Your task to perform on an android device: manage bookmarks in the chrome app Image 0: 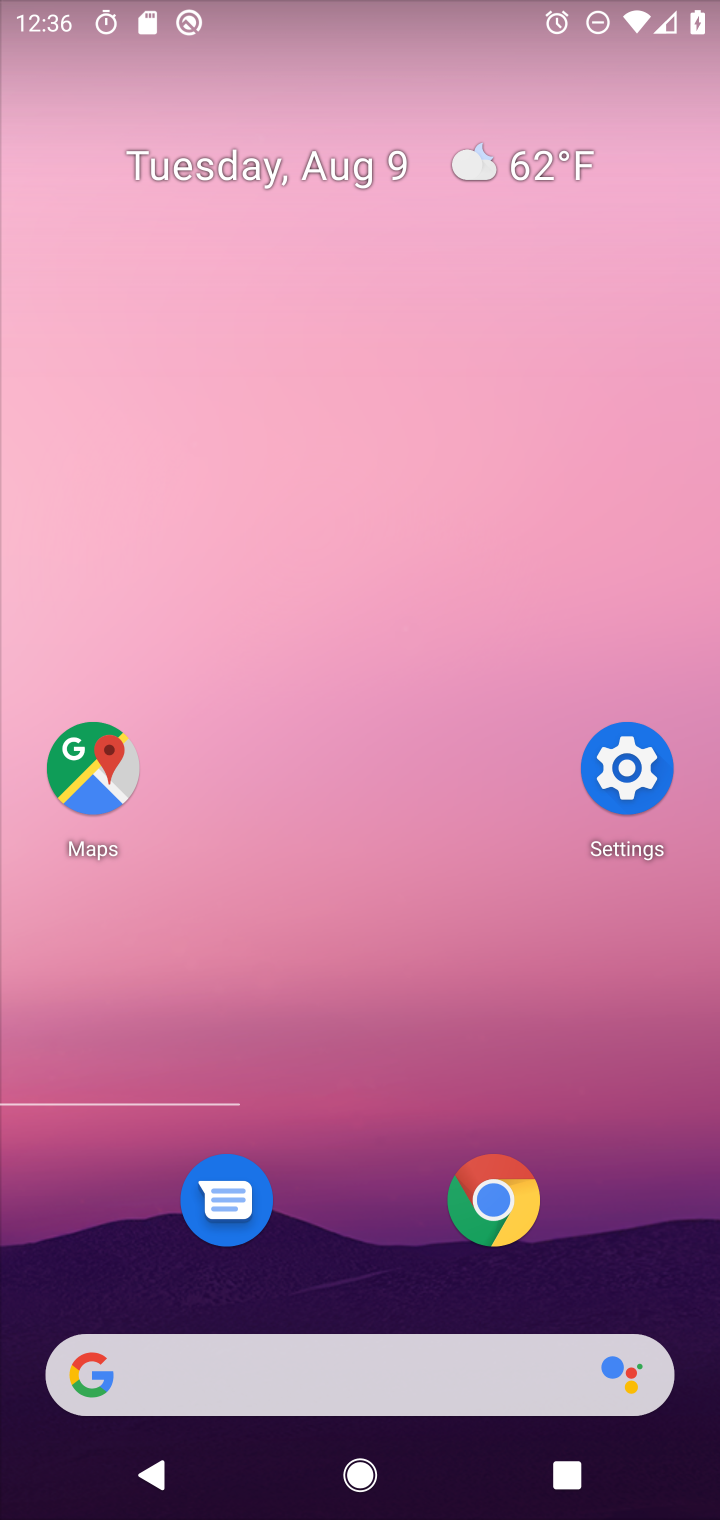
Step 0: press home button
Your task to perform on an android device: manage bookmarks in the chrome app Image 1: 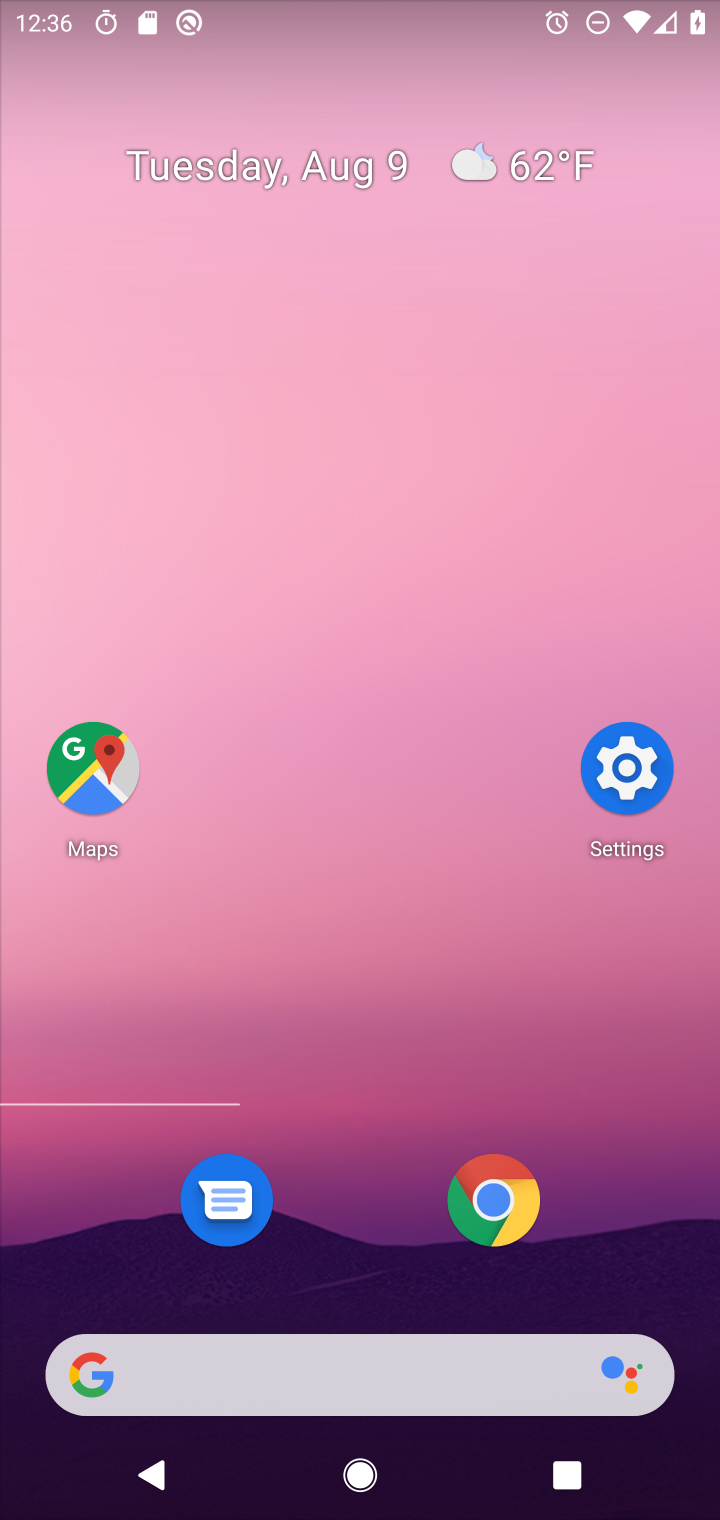
Step 1: click (491, 1197)
Your task to perform on an android device: manage bookmarks in the chrome app Image 2: 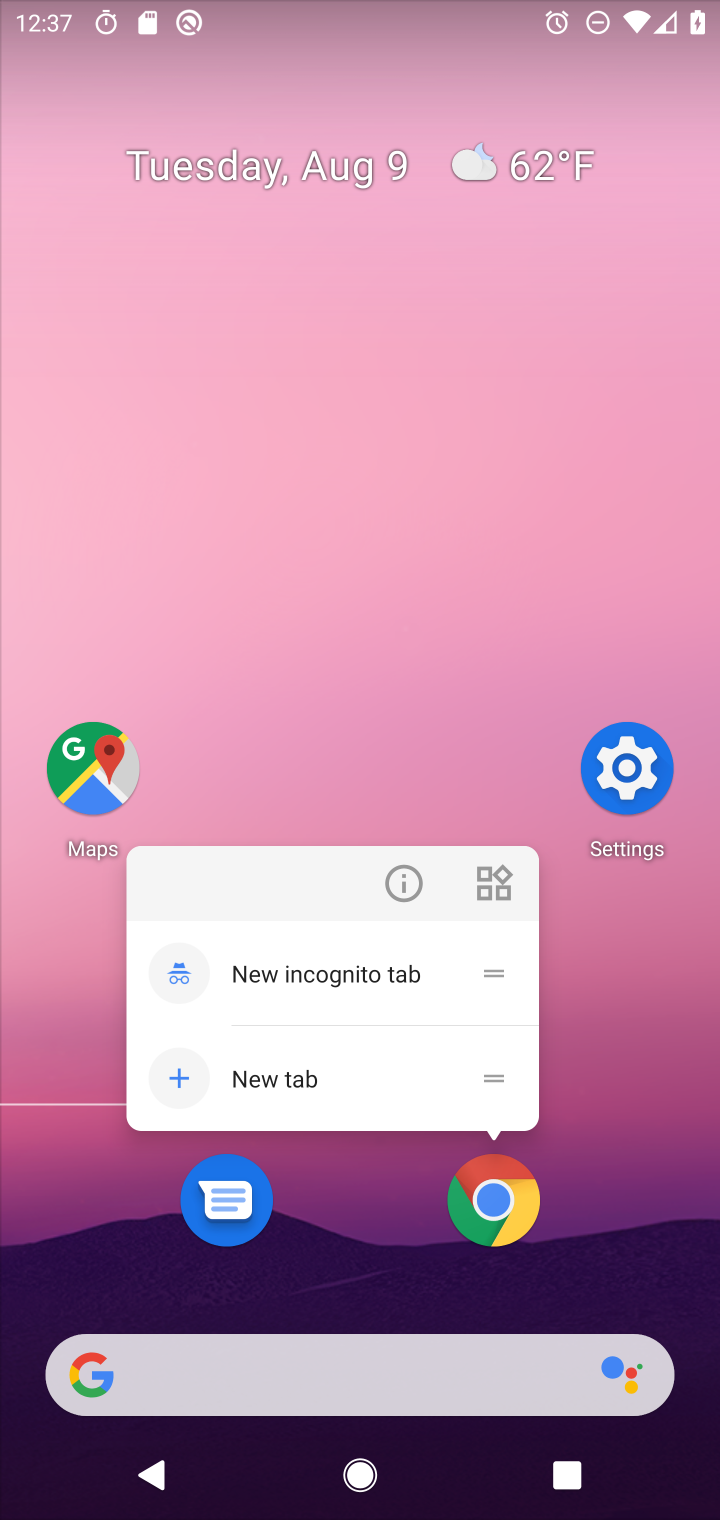
Step 2: click (491, 1201)
Your task to perform on an android device: manage bookmarks in the chrome app Image 3: 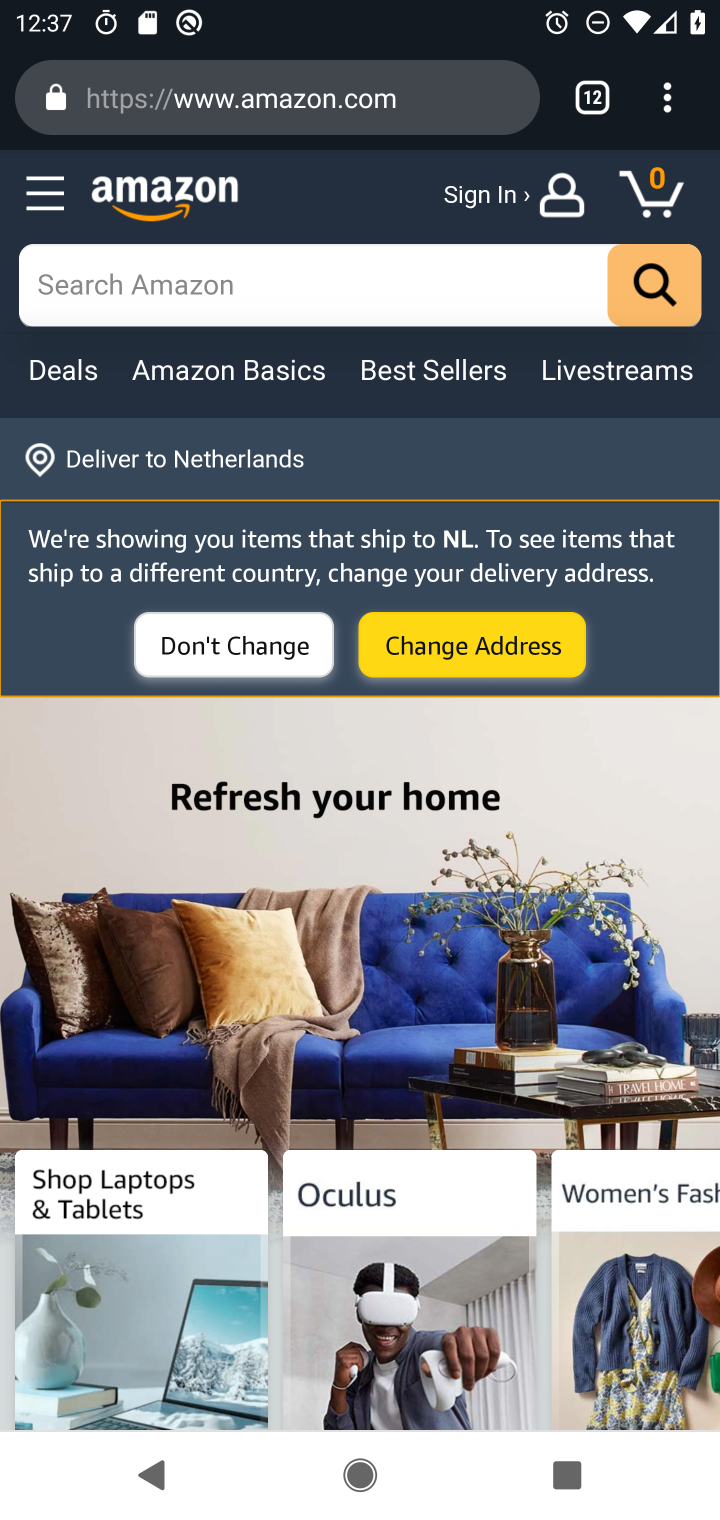
Step 3: drag from (659, 99) to (555, 470)
Your task to perform on an android device: manage bookmarks in the chrome app Image 4: 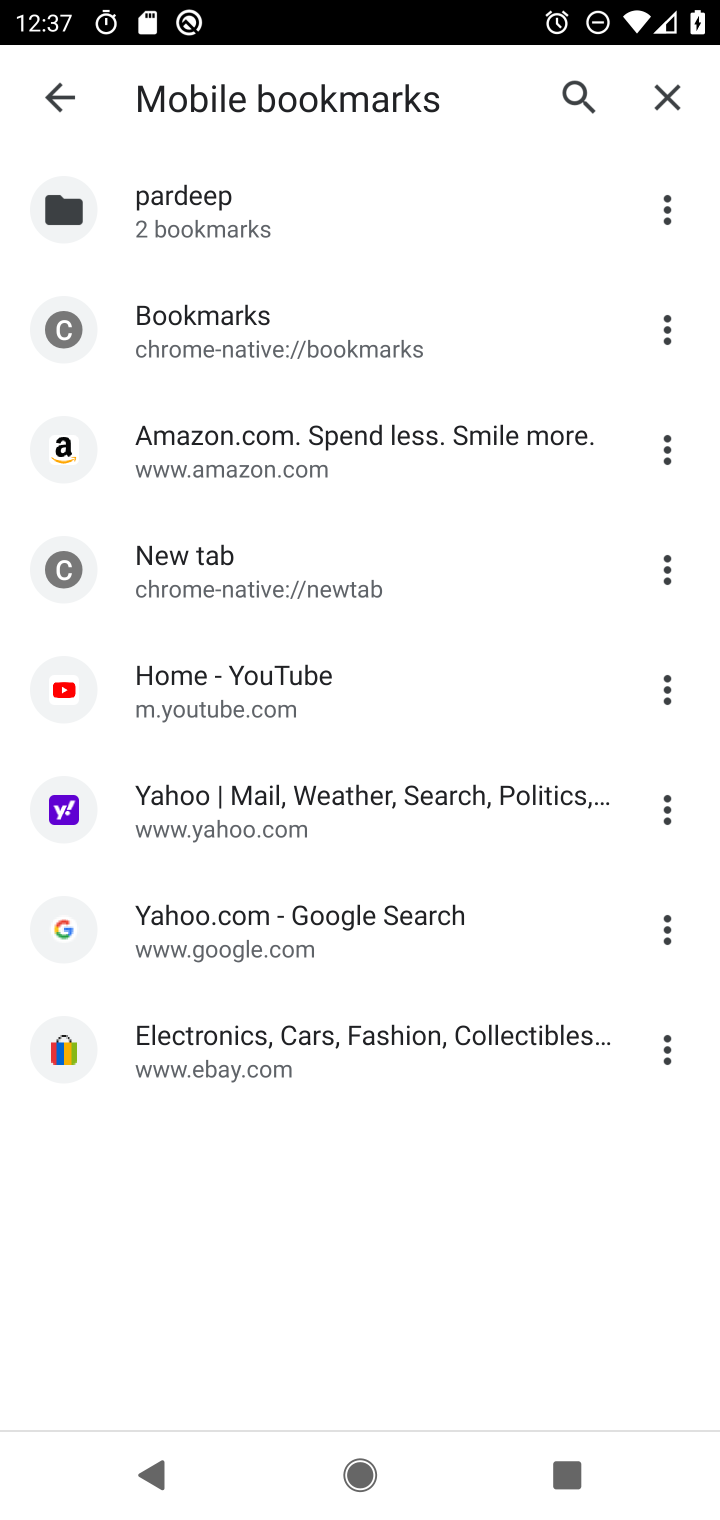
Step 4: click (652, 453)
Your task to perform on an android device: manage bookmarks in the chrome app Image 5: 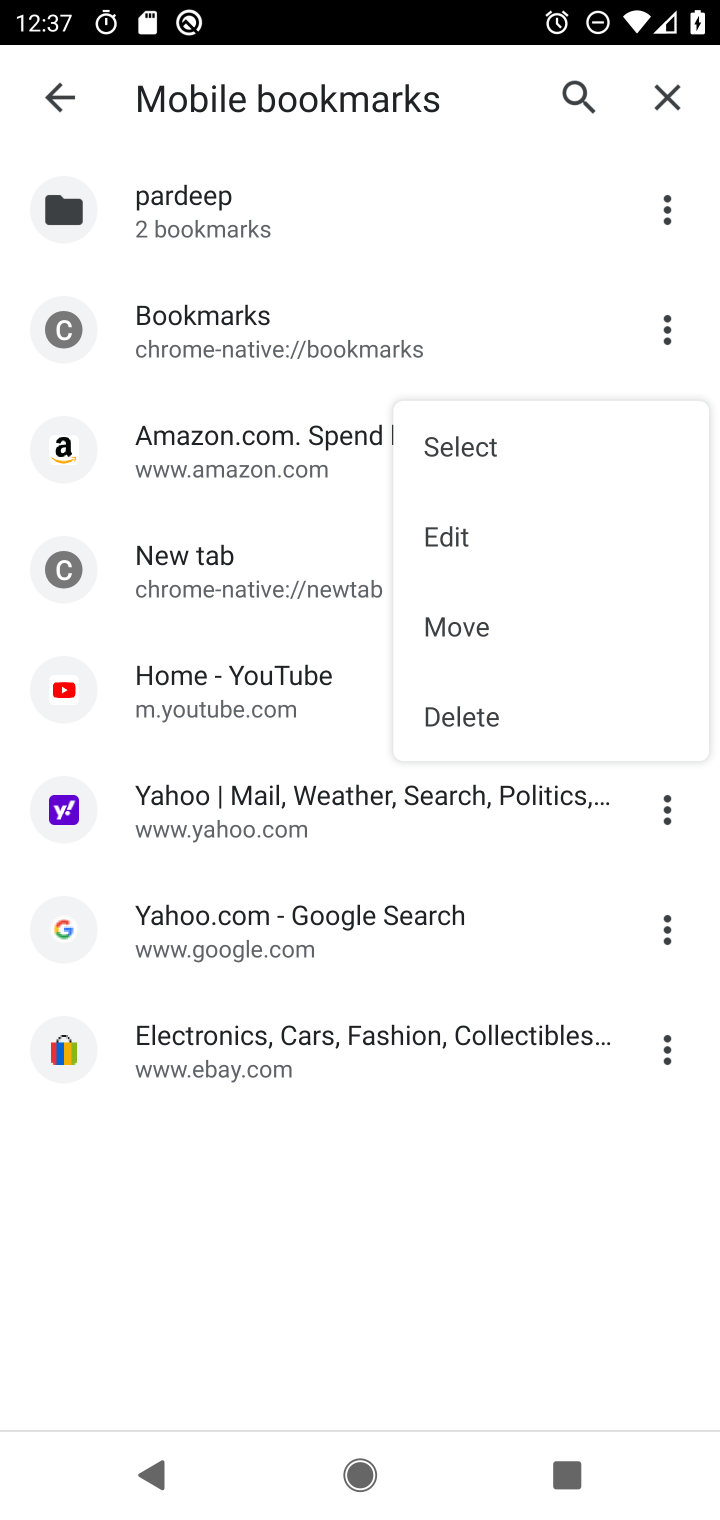
Step 5: click (480, 625)
Your task to perform on an android device: manage bookmarks in the chrome app Image 6: 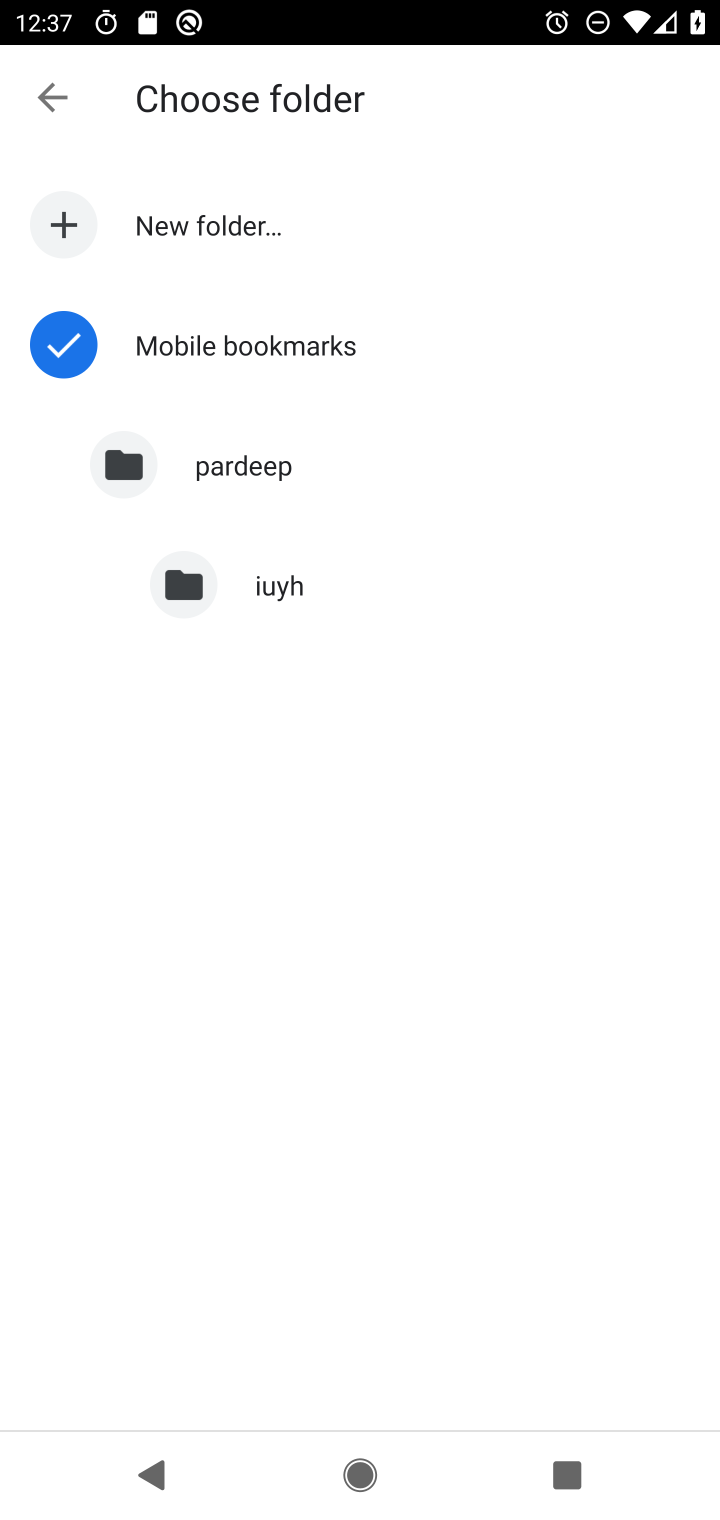
Step 6: click (234, 348)
Your task to perform on an android device: manage bookmarks in the chrome app Image 7: 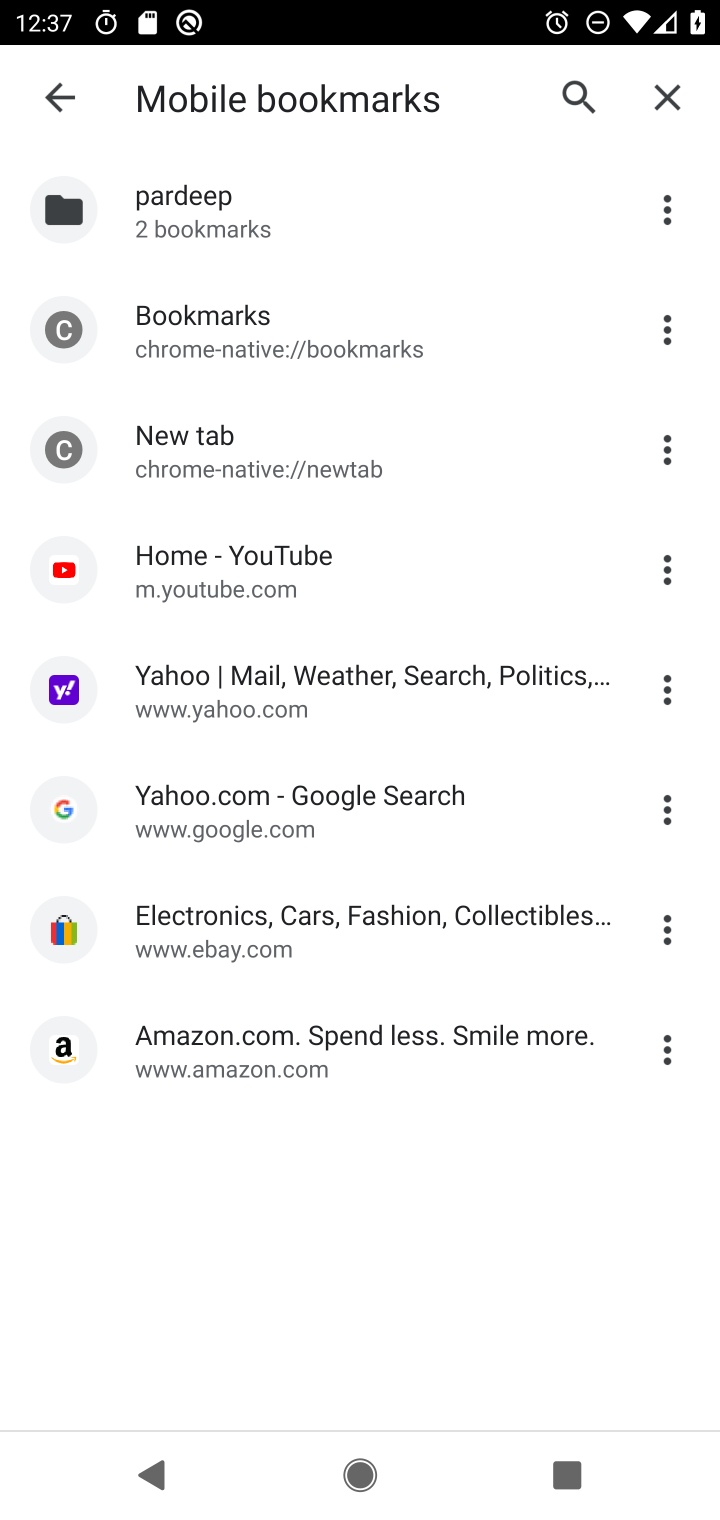
Step 7: task complete